Your task to perform on an android device: change the clock display to digital Image 0: 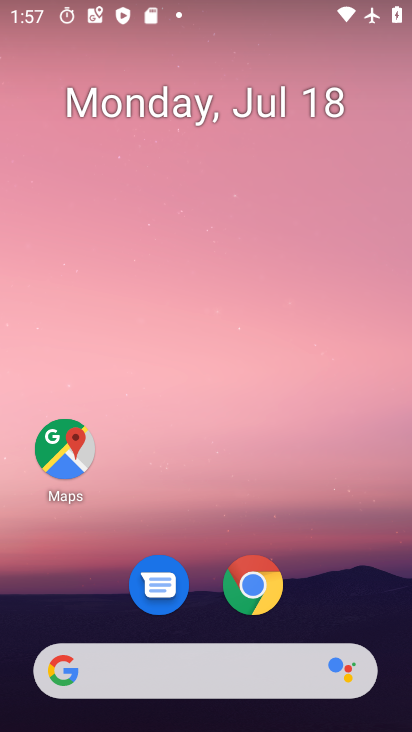
Step 0: press home button
Your task to perform on an android device: change the clock display to digital Image 1: 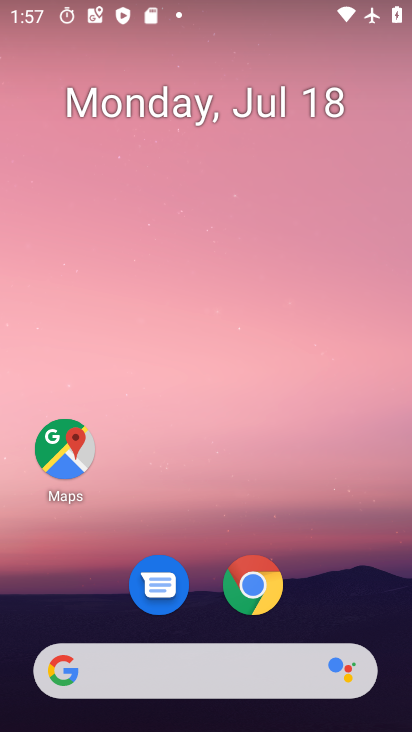
Step 1: drag from (238, 657) to (322, 259)
Your task to perform on an android device: change the clock display to digital Image 2: 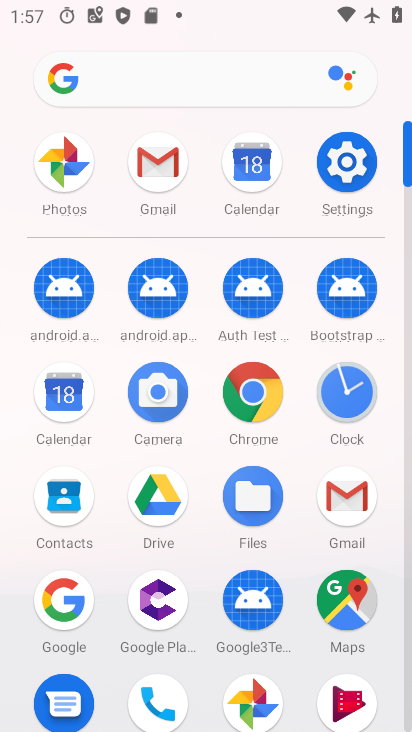
Step 2: click (349, 399)
Your task to perform on an android device: change the clock display to digital Image 3: 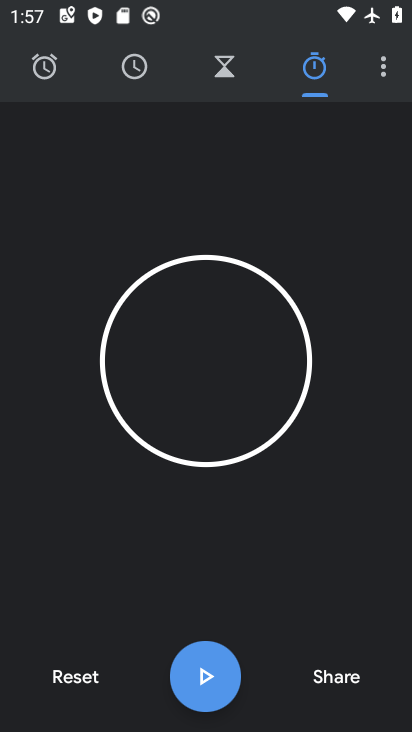
Step 3: click (382, 68)
Your task to perform on an android device: change the clock display to digital Image 4: 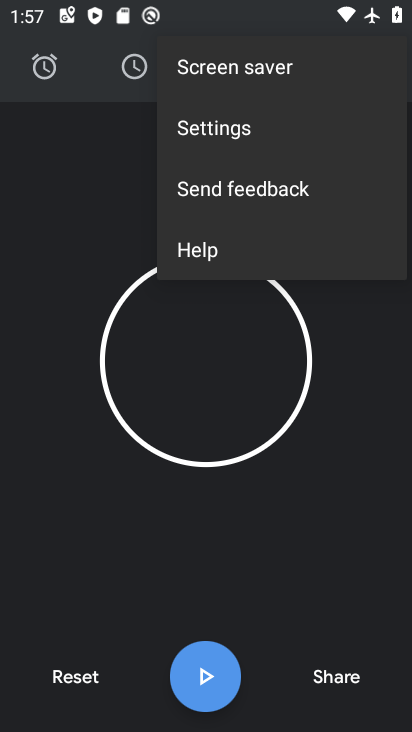
Step 4: click (228, 124)
Your task to perform on an android device: change the clock display to digital Image 5: 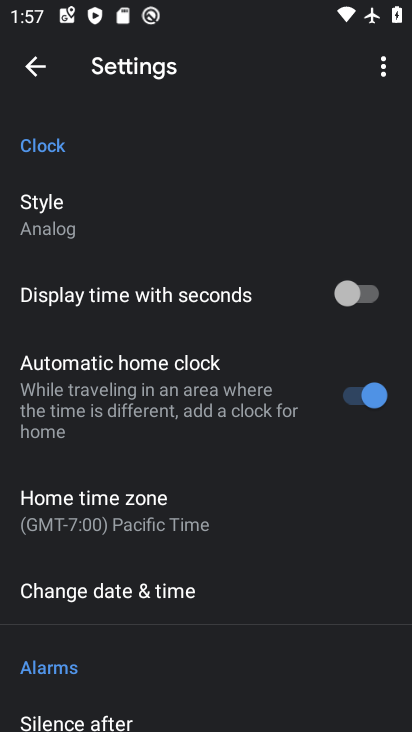
Step 5: click (72, 237)
Your task to perform on an android device: change the clock display to digital Image 6: 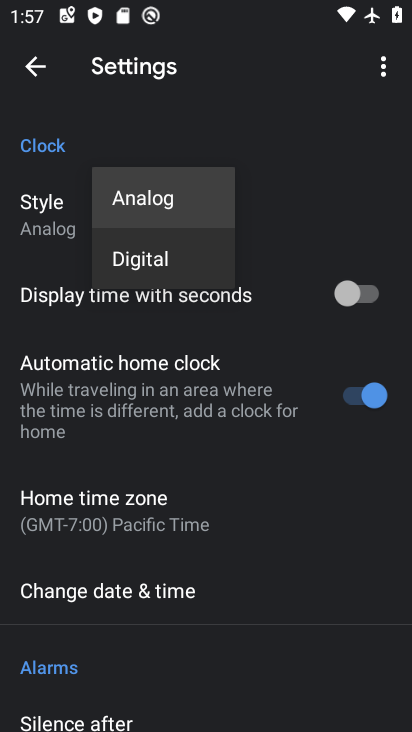
Step 6: click (141, 253)
Your task to perform on an android device: change the clock display to digital Image 7: 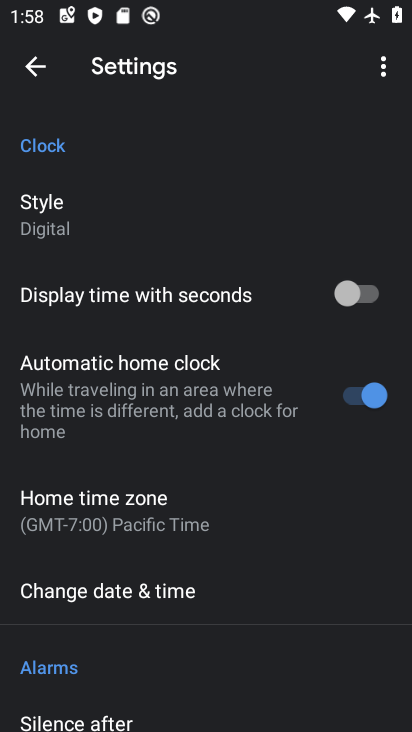
Step 7: task complete